Your task to perform on an android device: Go to Google maps Image 0: 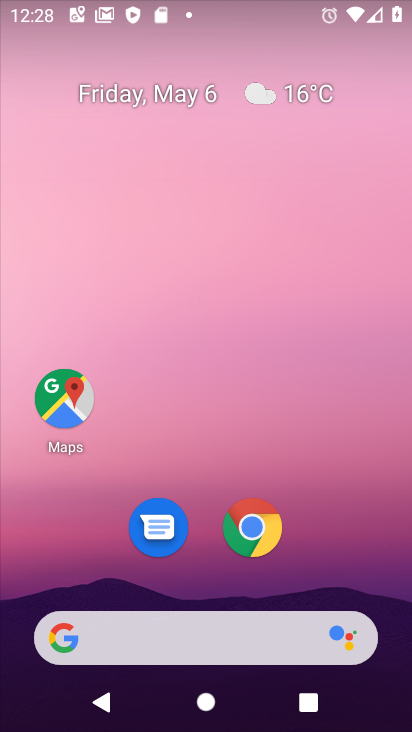
Step 0: click (64, 414)
Your task to perform on an android device: Go to Google maps Image 1: 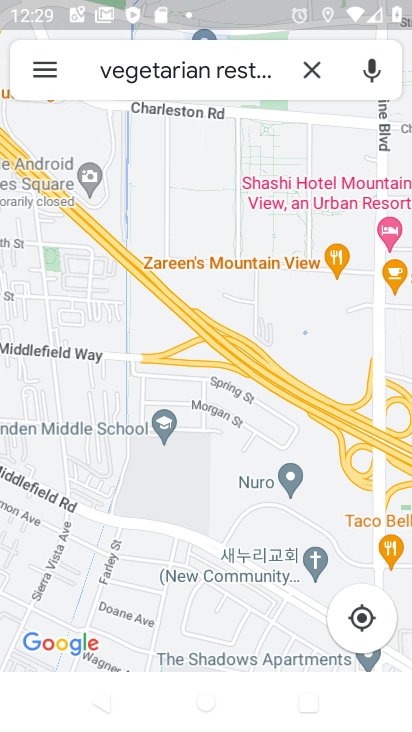
Step 1: task complete